Your task to perform on an android device: Go to location settings Image 0: 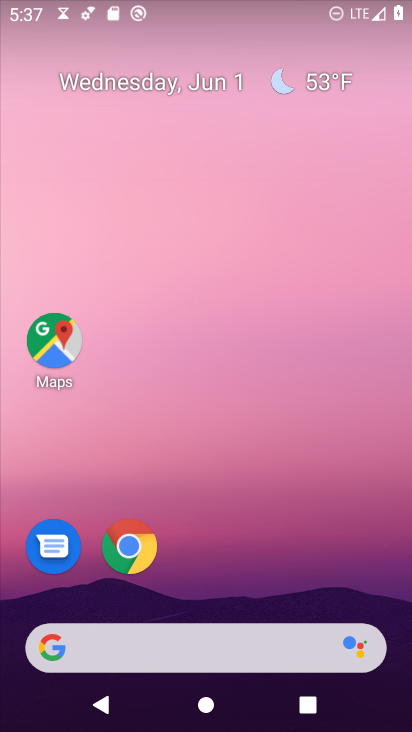
Step 0: drag from (243, 496) to (205, 31)
Your task to perform on an android device: Go to location settings Image 1: 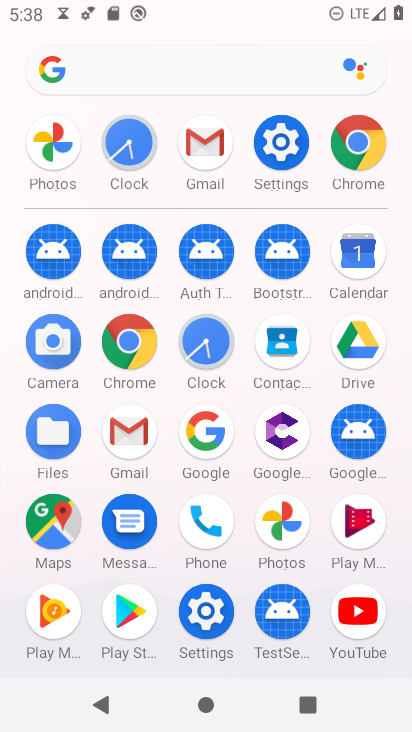
Step 1: drag from (5, 495) to (17, 200)
Your task to perform on an android device: Go to location settings Image 2: 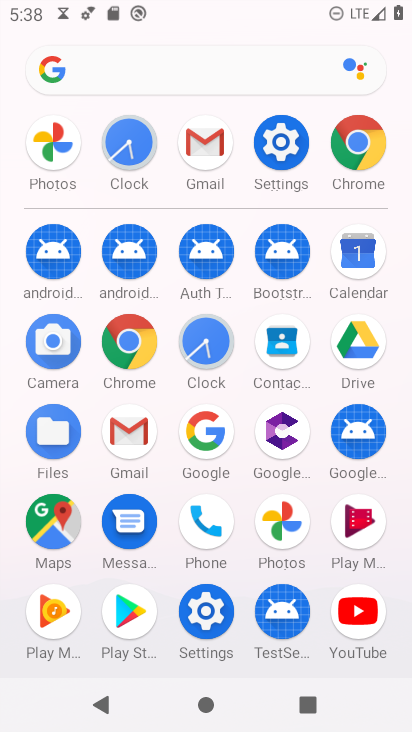
Step 2: click (207, 606)
Your task to perform on an android device: Go to location settings Image 3: 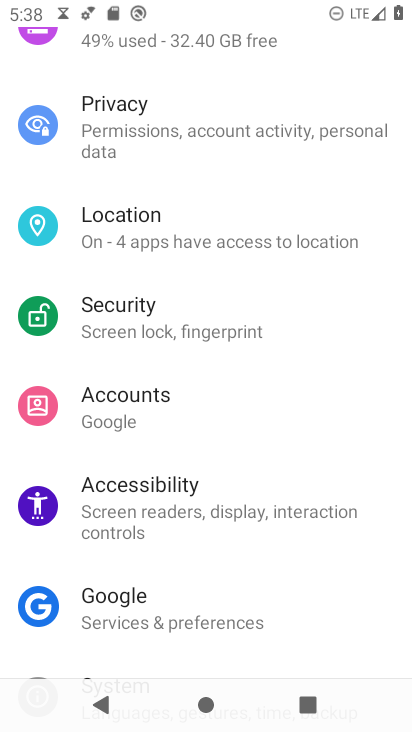
Step 3: click (167, 224)
Your task to perform on an android device: Go to location settings Image 4: 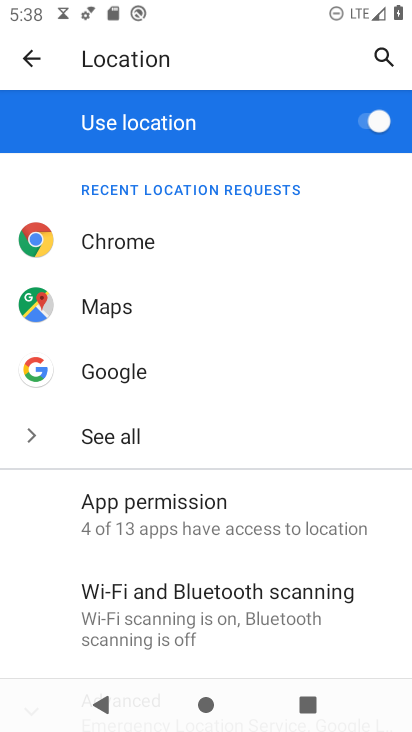
Step 4: task complete